Your task to perform on an android device: refresh tabs in the chrome app Image 0: 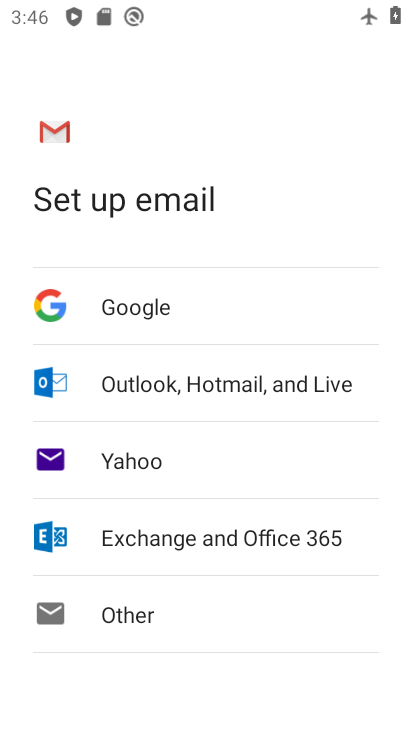
Step 0: press home button
Your task to perform on an android device: refresh tabs in the chrome app Image 1: 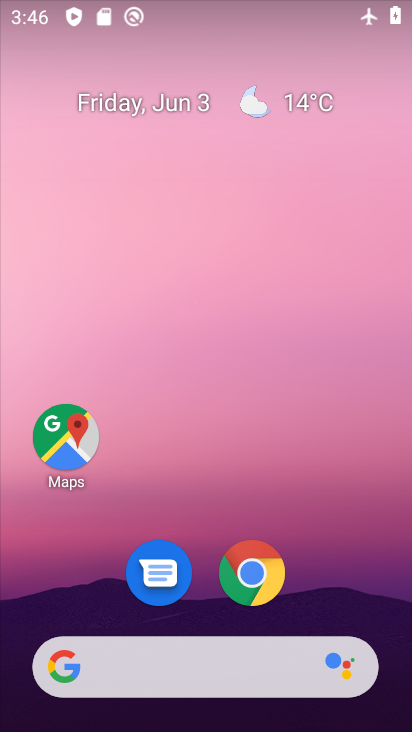
Step 1: click (276, 568)
Your task to perform on an android device: refresh tabs in the chrome app Image 2: 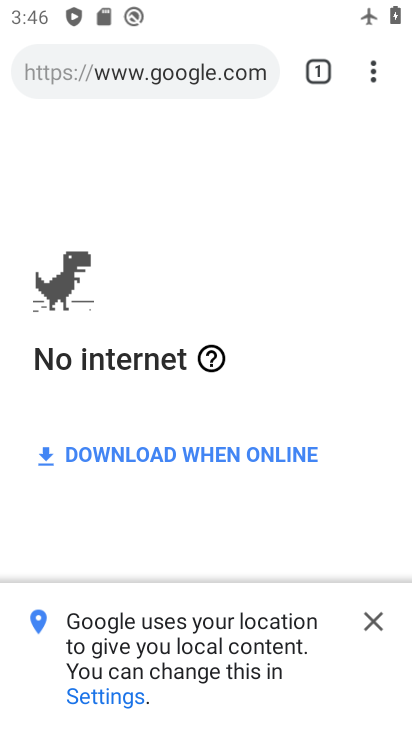
Step 2: click (380, 78)
Your task to perform on an android device: refresh tabs in the chrome app Image 3: 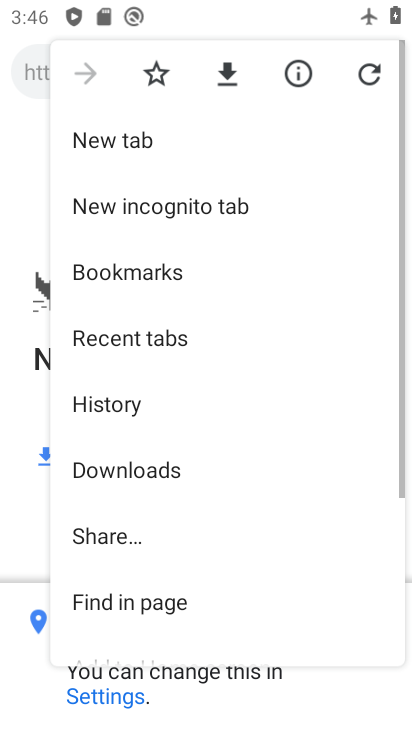
Step 3: click (380, 78)
Your task to perform on an android device: refresh tabs in the chrome app Image 4: 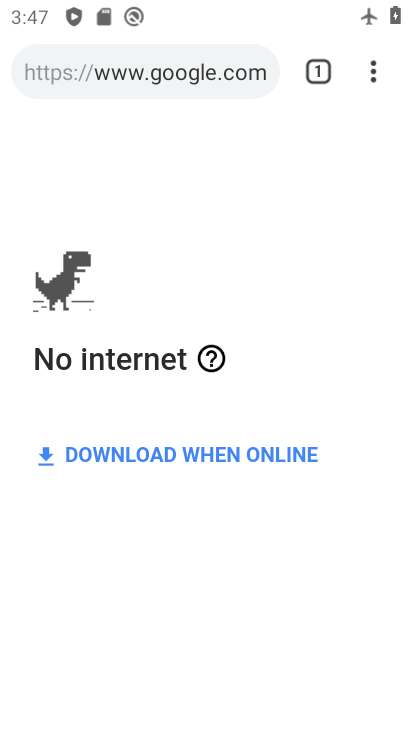
Step 4: task complete